Your task to perform on an android device: Show me the alarms in the clock app Image 0: 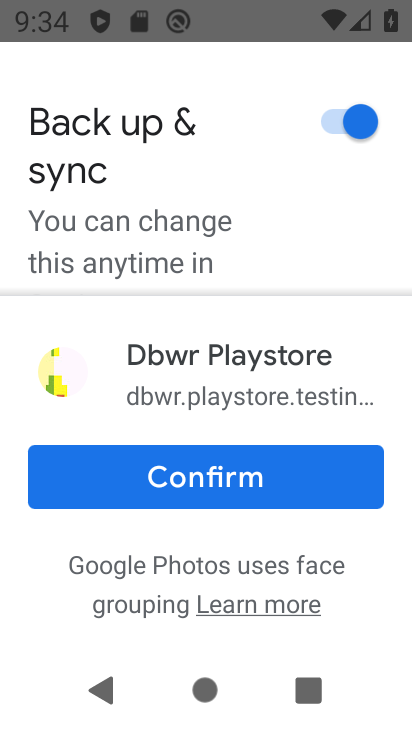
Step 0: press back button
Your task to perform on an android device: Show me the alarms in the clock app Image 1: 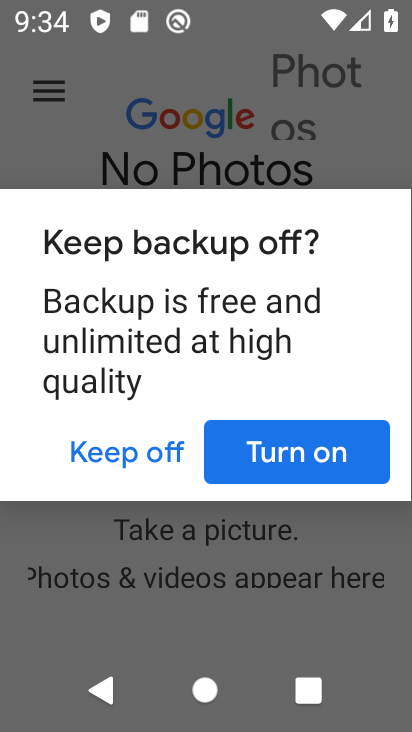
Step 1: press back button
Your task to perform on an android device: Show me the alarms in the clock app Image 2: 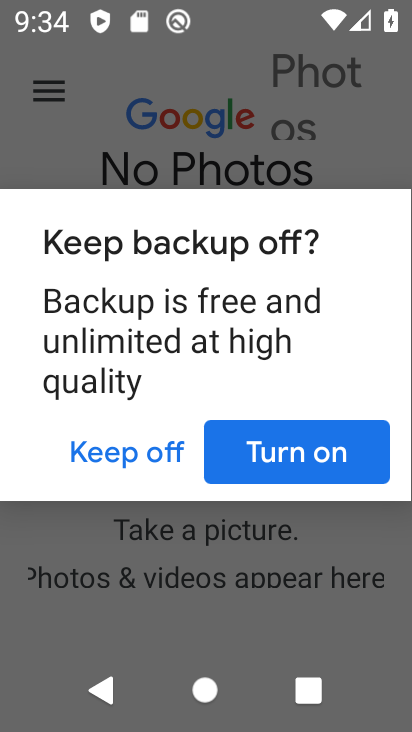
Step 2: press back button
Your task to perform on an android device: Show me the alarms in the clock app Image 3: 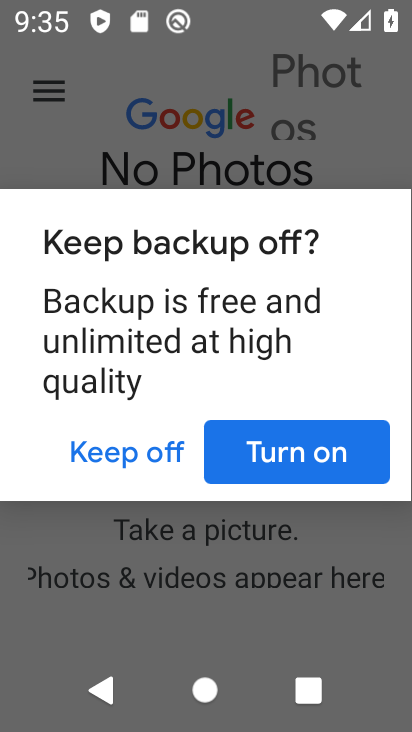
Step 3: press back button
Your task to perform on an android device: Show me the alarms in the clock app Image 4: 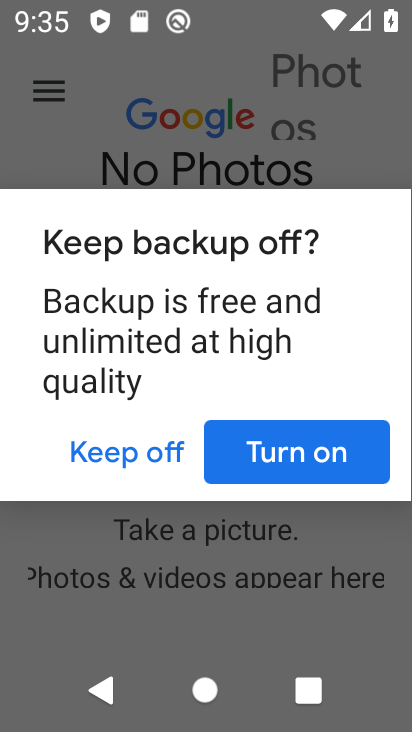
Step 4: press home button
Your task to perform on an android device: Show me the alarms in the clock app Image 5: 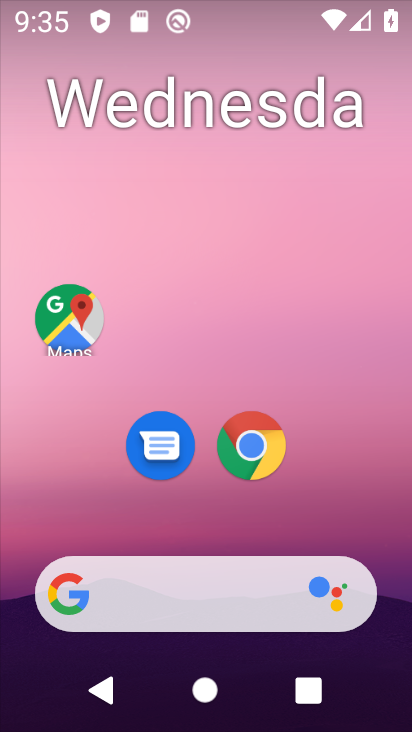
Step 5: drag from (165, 485) to (238, 4)
Your task to perform on an android device: Show me the alarms in the clock app Image 6: 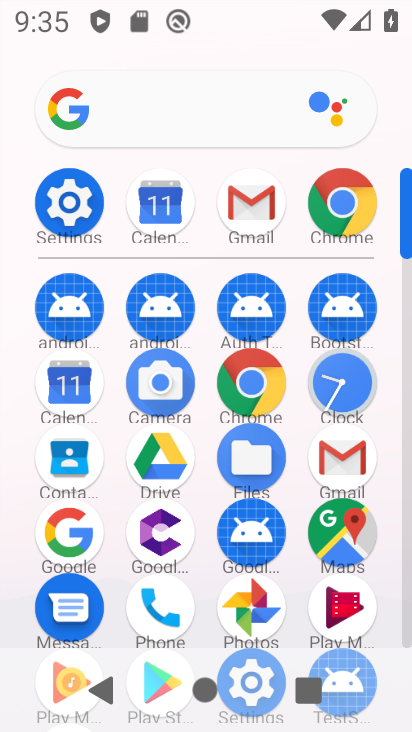
Step 6: click (342, 392)
Your task to perform on an android device: Show me the alarms in the clock app Image 7: 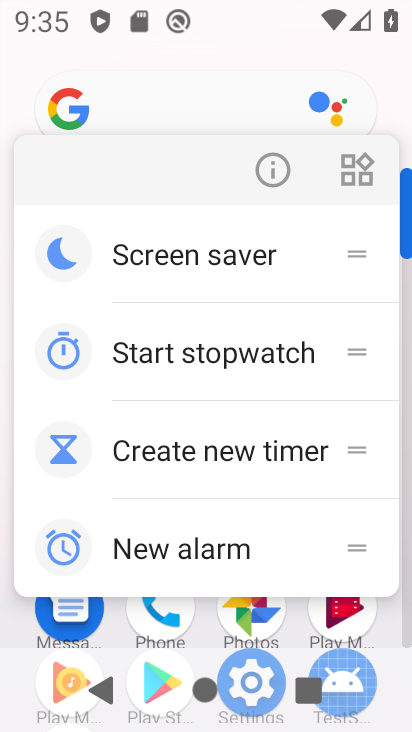
Step 7: click (121, 620)
Your task to perform on an android device: Show me the alarms in the clock app Image 8: 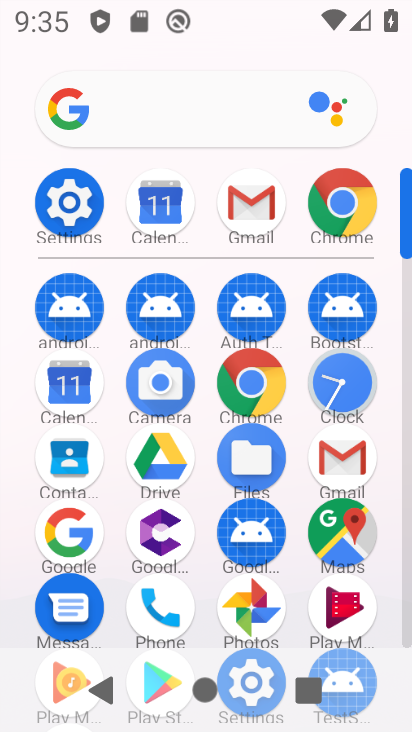
Step 8: click (364, 379)
Your task to perform on an android device: Show me the alarms in the clock app Image 9: 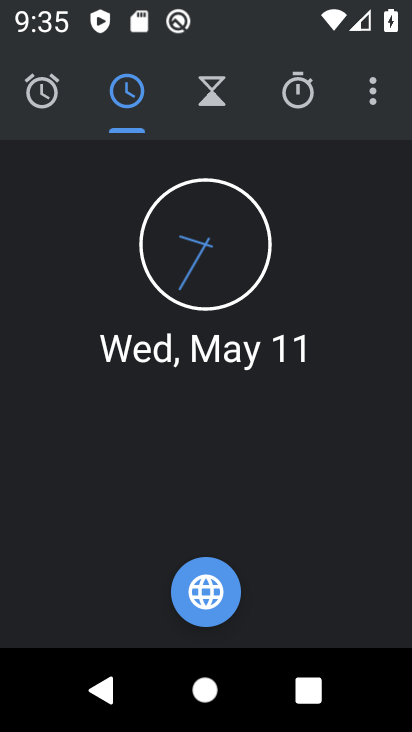
Step 9: click (40, 95)
Your task to perform on an android device: Show me the alarms in the clock app Image 10: 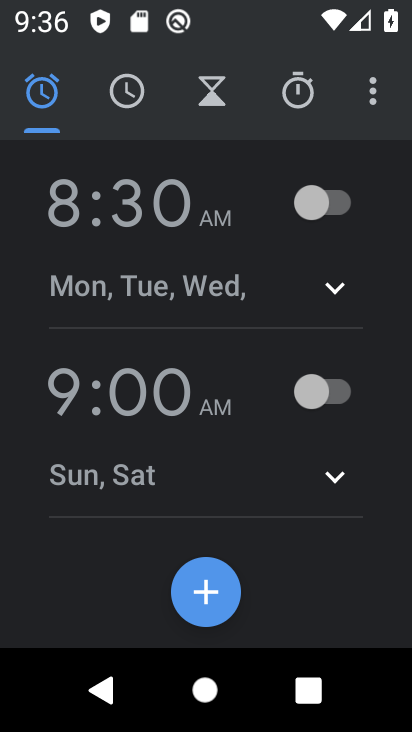
Step 10: task complete